Your task to perform on an android device: find which apps use the phone's location Image 0: 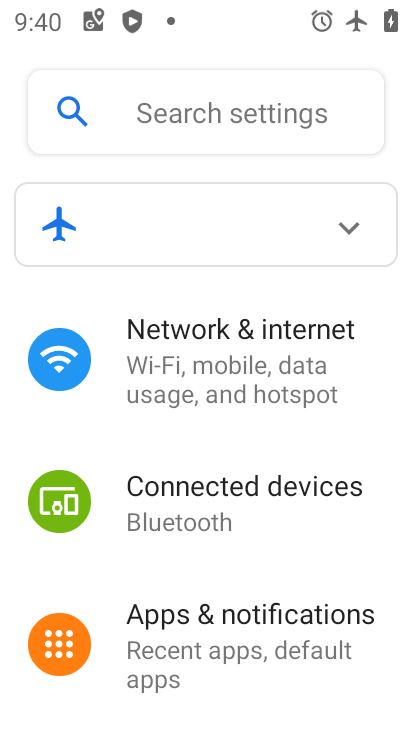
Step 0: drag from (256, 608) to (255, 75)
Your task to perform on an android device: find which apps use the phone's location Image 1: 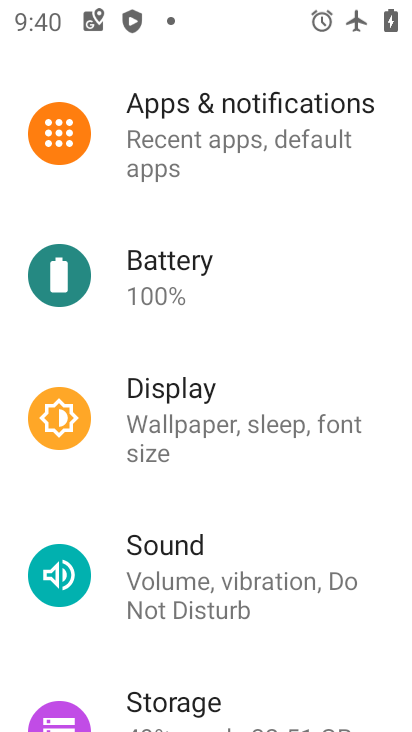
Step 1: drag from (253, 610) to (281, 290)
Your task to perform on an android device: find which apps use the phone's location Image 2: 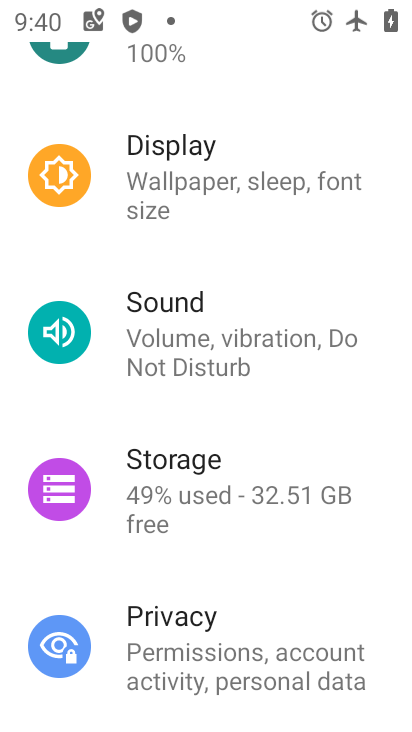
Step 2: drag from (267, 631) to (240, 296)
Your task to perform on an android device: find which apps use the phone's location Image 3: 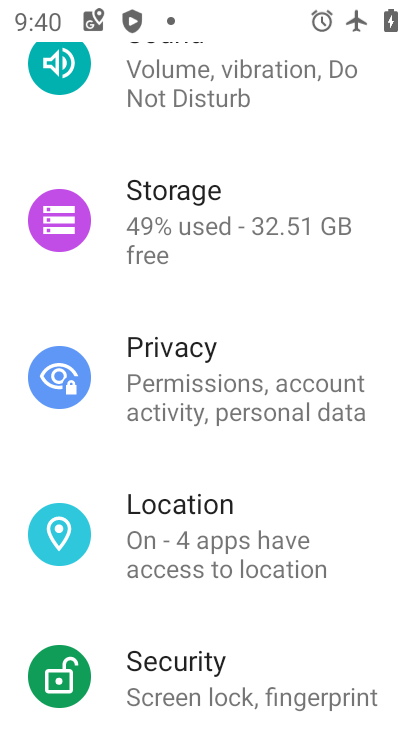
Step 3: click (241, 552)
Your task to perform on an android device: find which apps use the phone's location Image 4: 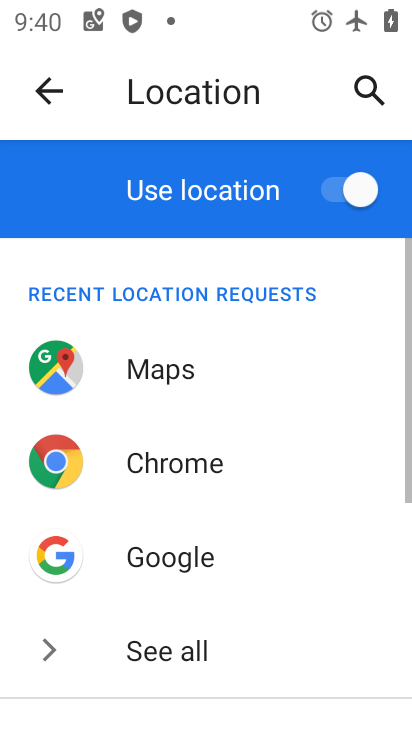
Step 4: drag from (249, 530) to (257, 399)
Your task to perform on an android device: find which apps use the phone's location Image 5: 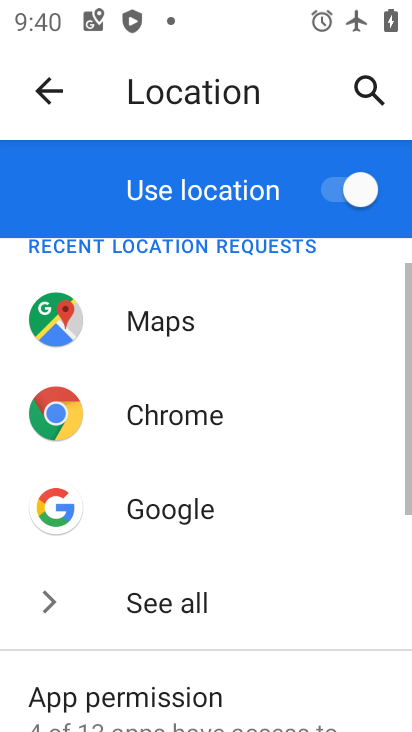
Step 5: drag from (273, 586) to (281, 281)
Your task to perform on an android device: find which apps use the phone's location Image 6: 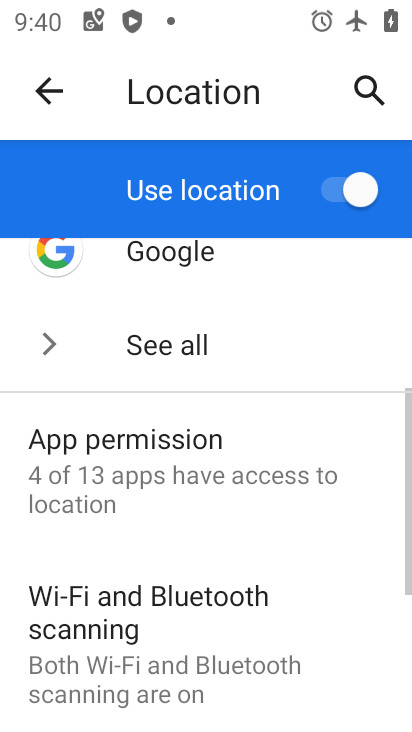
Step 6: drag from (276, 431) to (227, 410)
Your task to perform on an android device: find which apps use the phone's location Image 7: 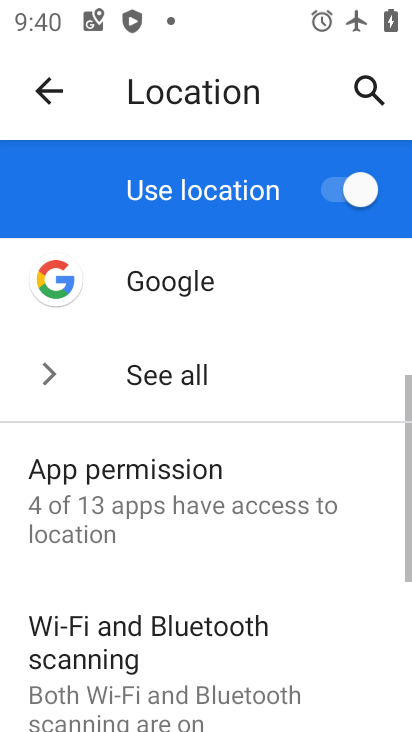
Step 7: click (227, 412)
Your task to perform on an android device: find which apps use the phone's location Image 8: 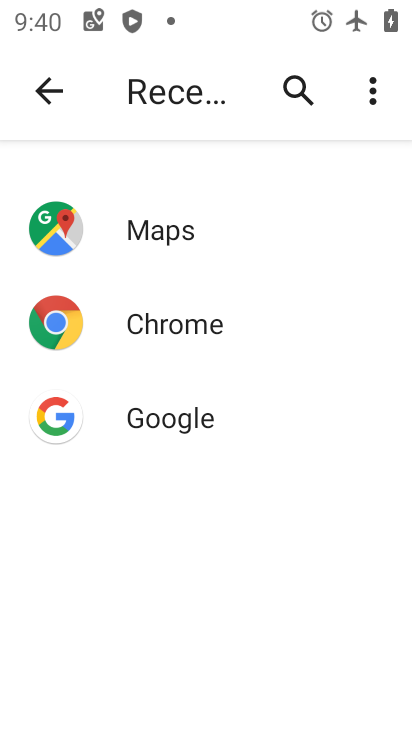
Step 8: click (57, 96)
Your task to perform on an android device: find which apps use the phone's location Image 9: 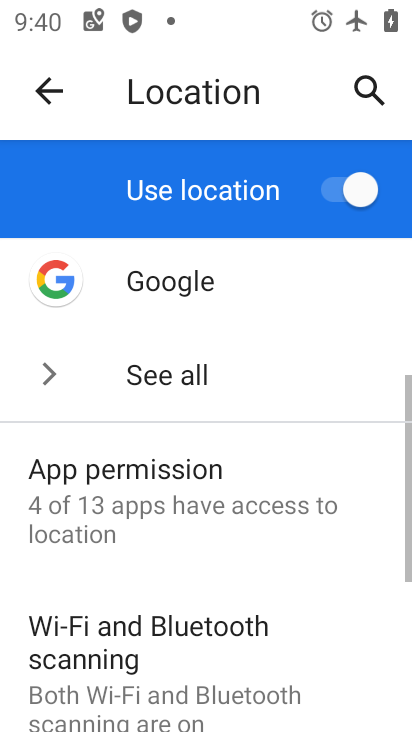
Step 9: click (243, 525)
Your task to perform on an android device: find which apps use the phone's location Image 10: 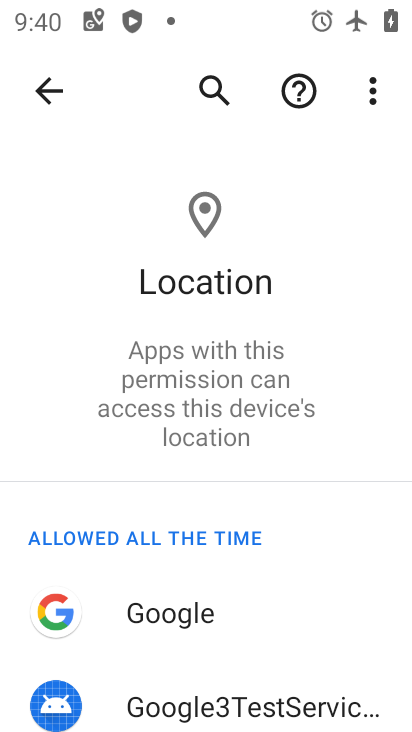
Step 10: task complete